Your task to perform on an android device: change the clock display to digital Image 0: 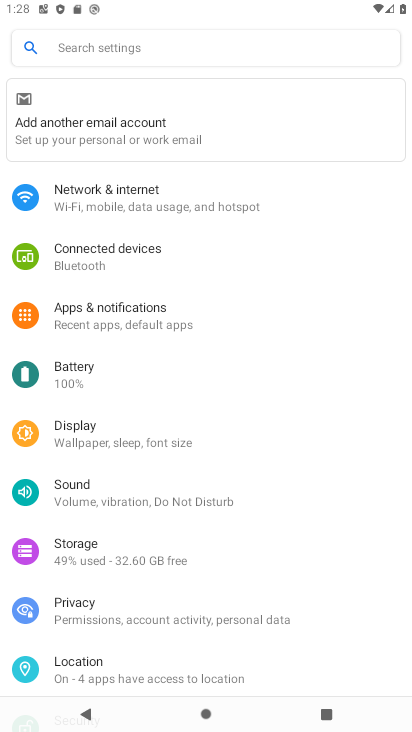
Step 0: press home button
Your task to perform on an android device: change the clock display to digital Image 1: 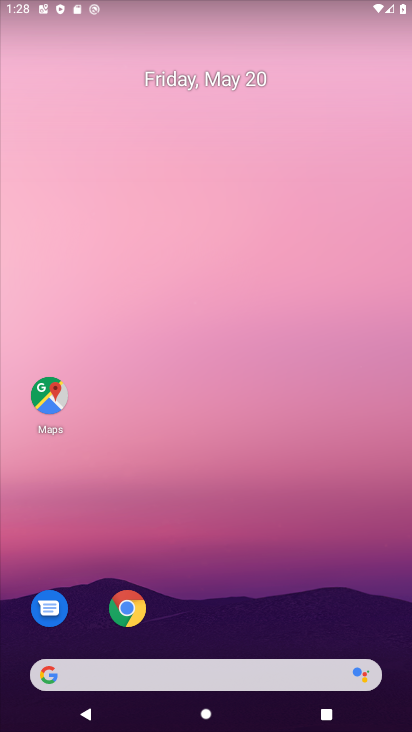
Step 1: drag from (253, 576) to (331, 115)
Your task to perform on an android device: change the clock display to digital Image 2: 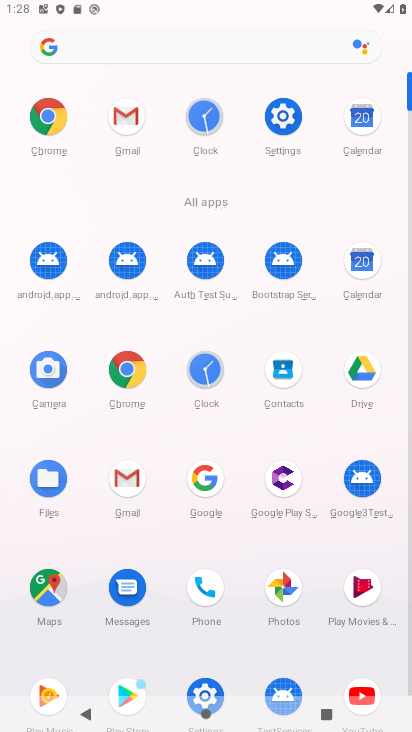
Step 2: click (191, 110)
Your task to perform on an android device: change the clock display to digital Image 3: 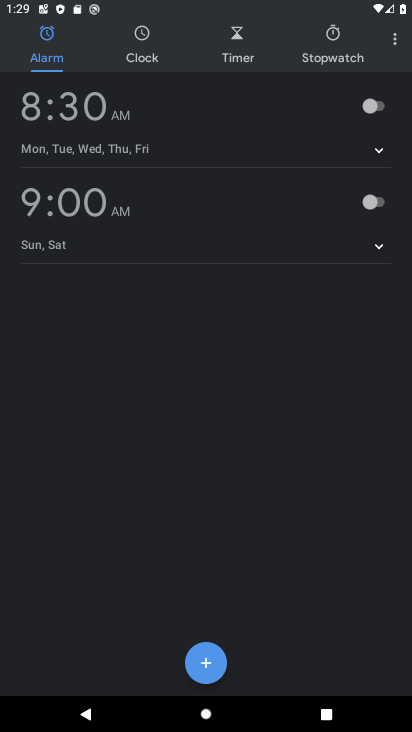
Step 3: click (391, 40)
Your task to perform on an android device: change the clock display to digital Image 4: 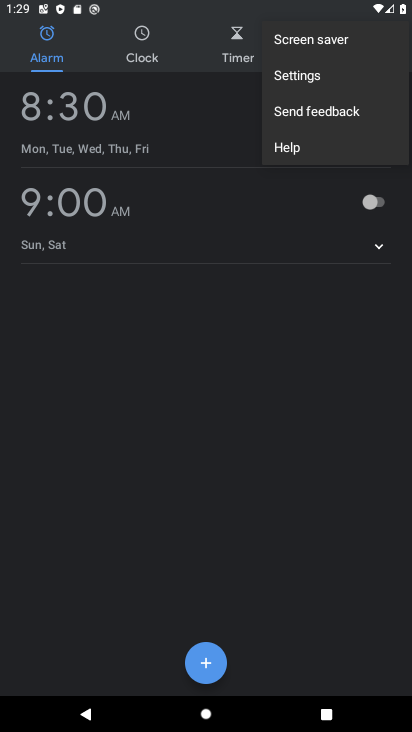
Step 4: click (310, 69)
Your task to perform on an android device: change the clock display to digital Image 5: 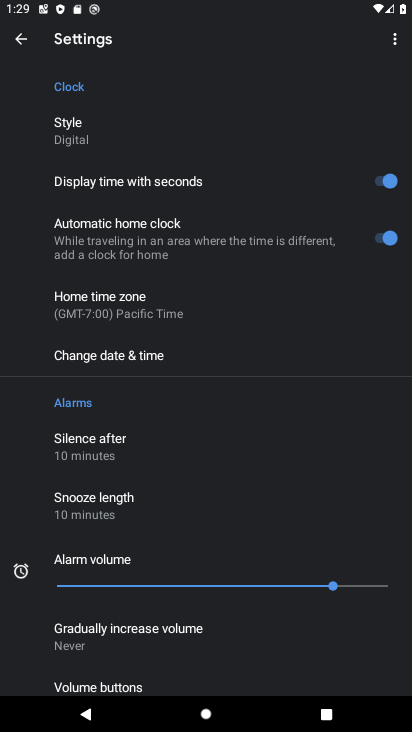
Step 5: click (91, 132)
Your task to perform on an android device: change the clock display to digital Image 6: 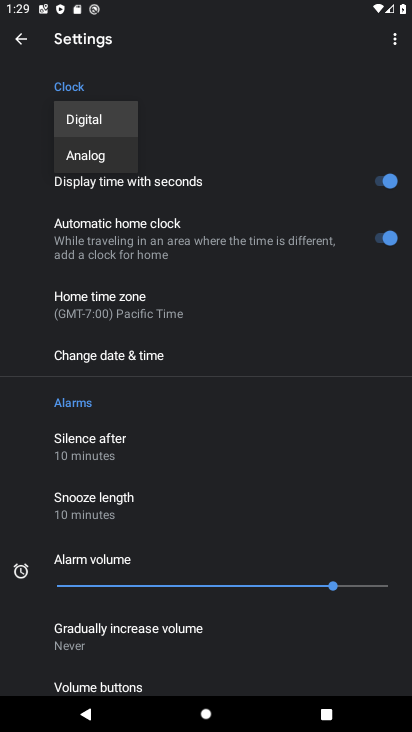
Step 6: click (101, 119)
Your task to perform on an android device: change the clock display to digital Image 7: 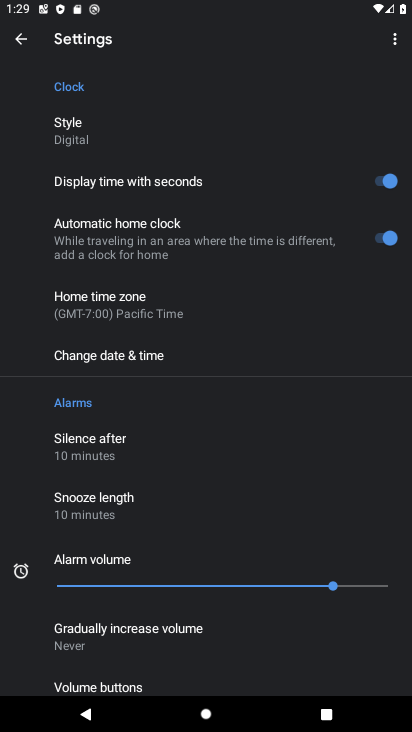
Step 7: task complete